Your task to perform on an android device: Is it going to rain tomorrow? Image 0: 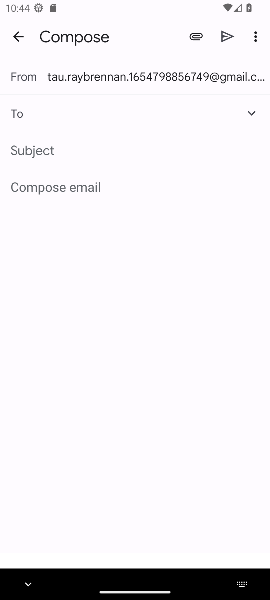
Step 0: press home button
Your task to perform on an android device: Is it going to rain tomorrow? Image 1: 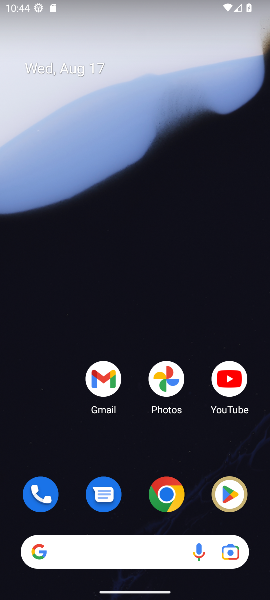
Step 1: drag from (137, 438) to (159, 64)
Your task to perform on an android device: Is it going to rain tomorrow? Image 2: 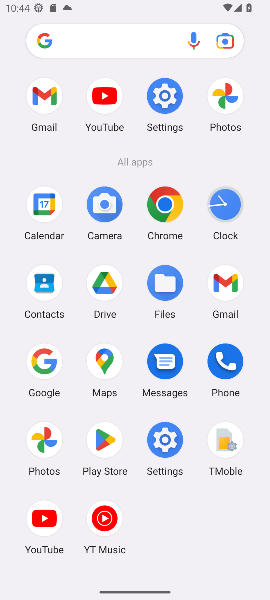
Step 2: click (42, 378)
Your task to perform on an android device: Is it going to rain tomorrow? Image 3: 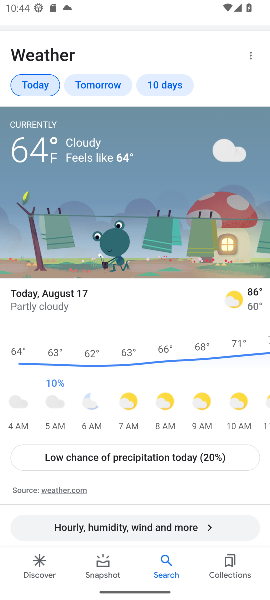
Step 3: click (106, 87)
Your task to perform on an android device: Is it going to rain tomorrow? Image 4: 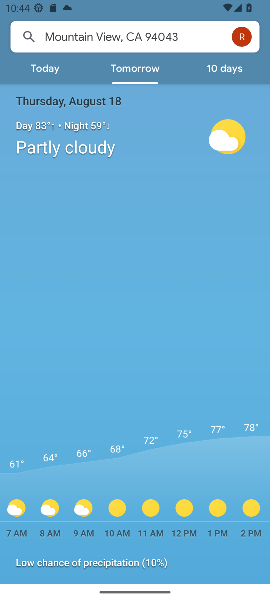
Step 4: task complete